Your task to perform on an android device: Open the calendar and show me this week's events? Image 0: 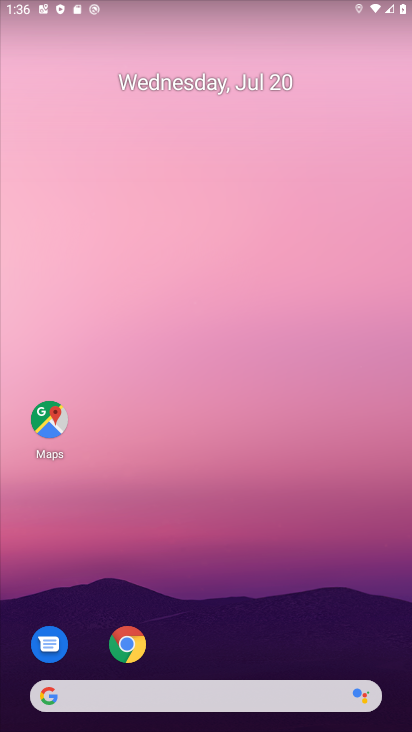
Step 0: press home button
Your task to perform on an android device: Open the calendar and show me this week's events? Image 1: 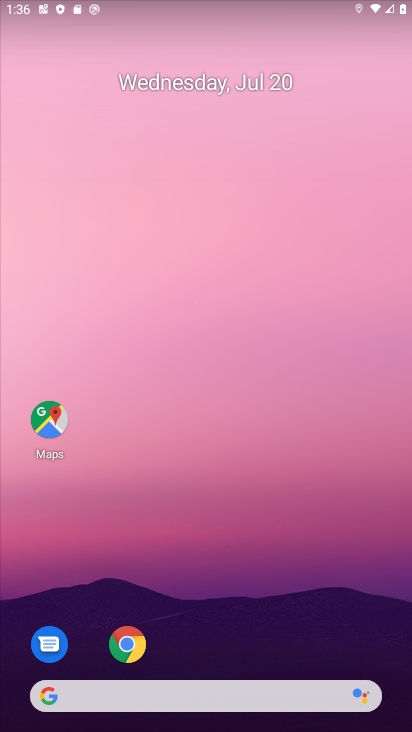
Step 1: drag from (284, 615) to (257, 92)
Your task to perform on an android device: Open the calendar and show me this week's events? Image 2: 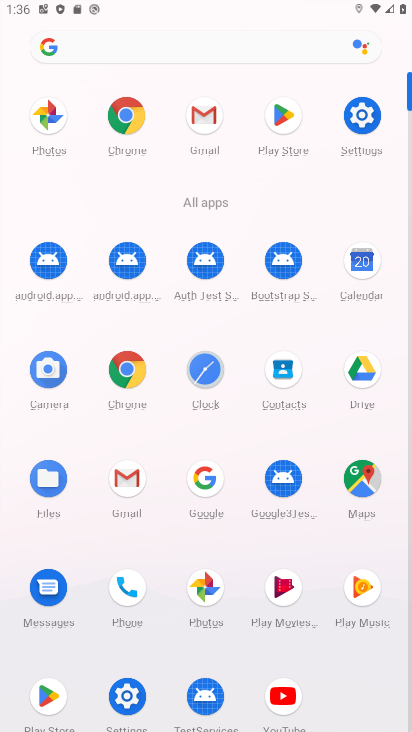
Step 2: click (365, 258)
Your task to perform on an android device: Open the calendar and show me this week's events? Image 3: 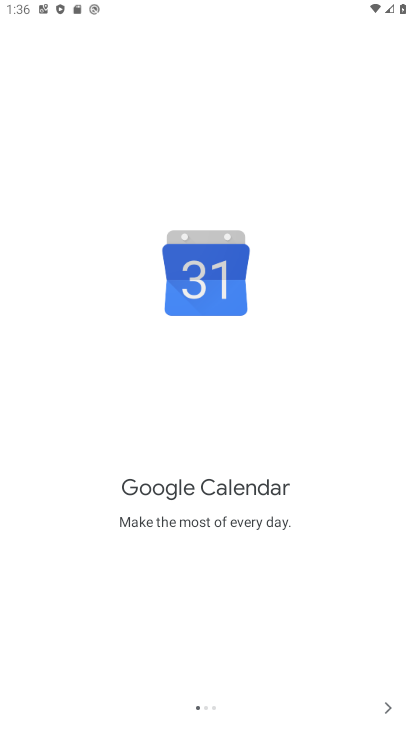
Step 3: click (392, 710)
Your task to perform on an android device: Open the calendar and show me this week's events? Image 4: 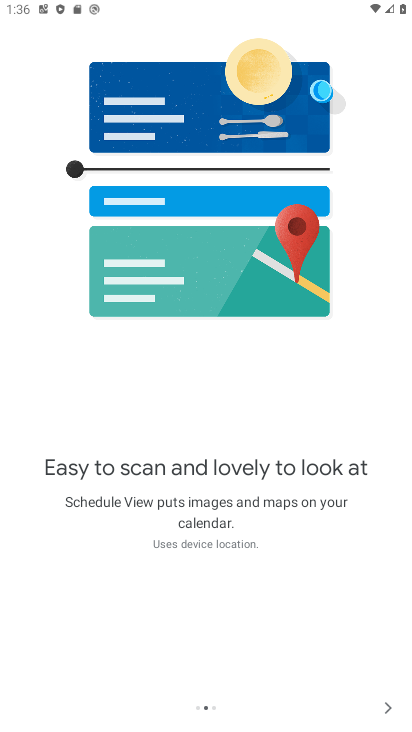
Step 4: click (389, 708)
Your task to perform on an android device: Open the calendar and show me this week's events? Image 5: 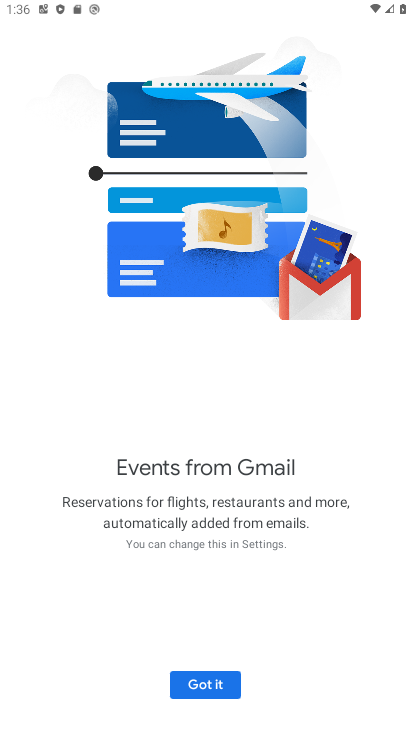
Step 5: click (226, 690)
Your task to perform on an android device: Open the calendar and show me this week's events? Image 6: 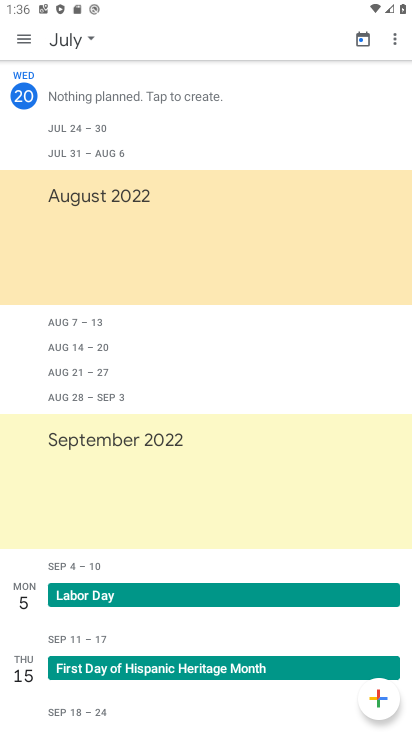
Step 6: click (21, 40)
Your task to perform on an android device: Open the calendar and show me this week's events? Image 7: 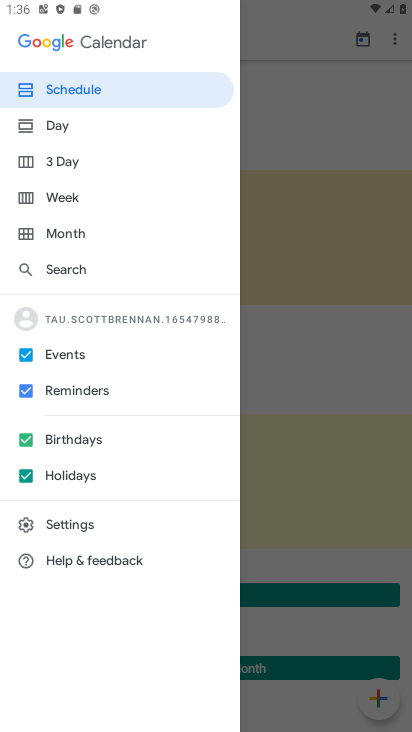
Step 7: click (60, 199)
Your task to perform on an android device: Open the calendar and show me this week's events? Image 8: 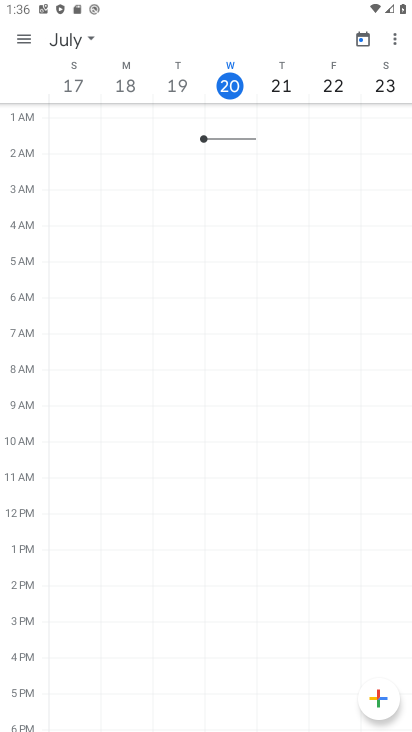
Step 8: task complete